Your task to perform on an android device: turn off smart reply in the gmail app Image 0: 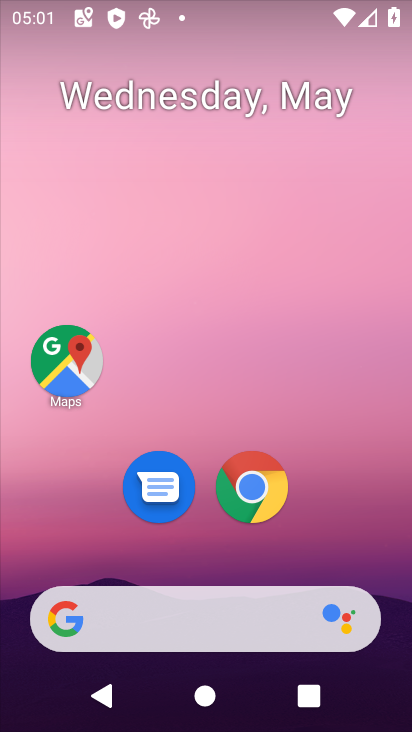
Step 0: drag from (348, 549) to (319, 184)
Your task to perform on an android device: turn off smart reply in the gmail app Image 1: 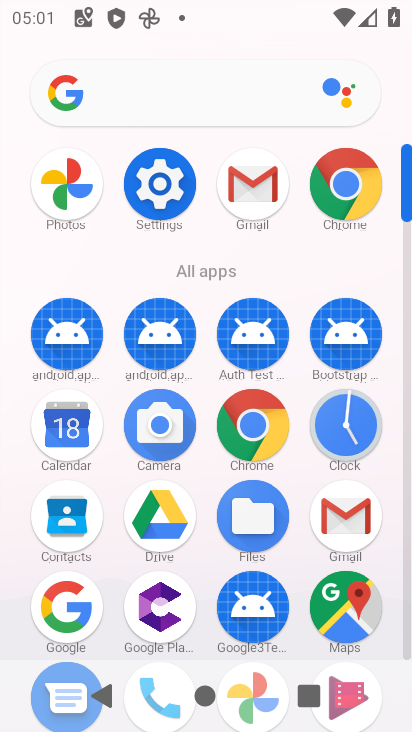
Step 1: click (264, 189)
Your task to perform on an android device: turn off smart reply in the gmail app Image 2: 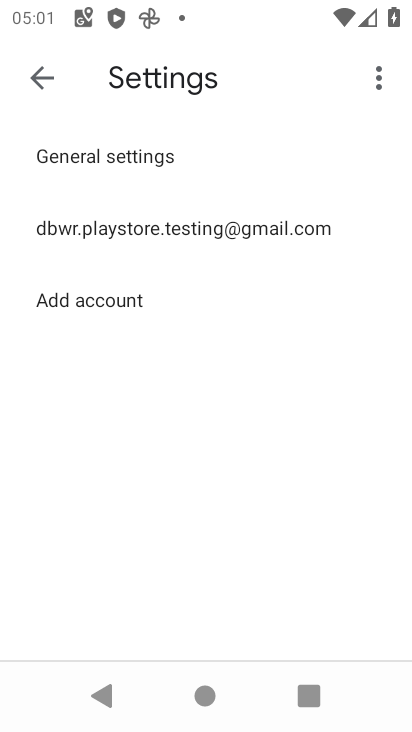
Step 2: click (211, 226)
Your task to perform on an android device: turn off smart reply in the gmail app Image 3: 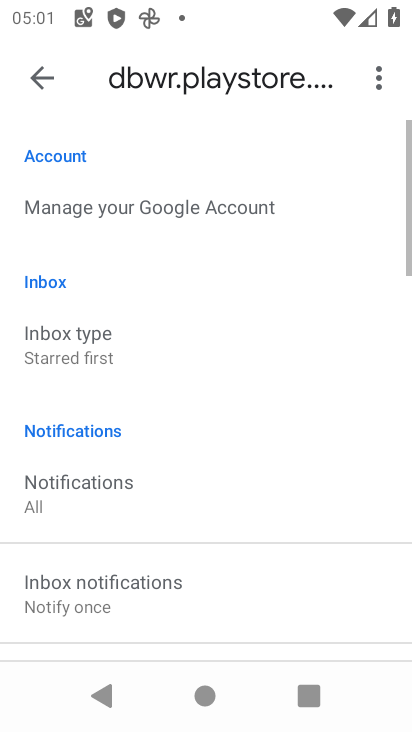
Step 3: drag from (118, 571) to (177, 236)
Your task to perform on an android device: turn off smart reply in the gmail app Image 4: 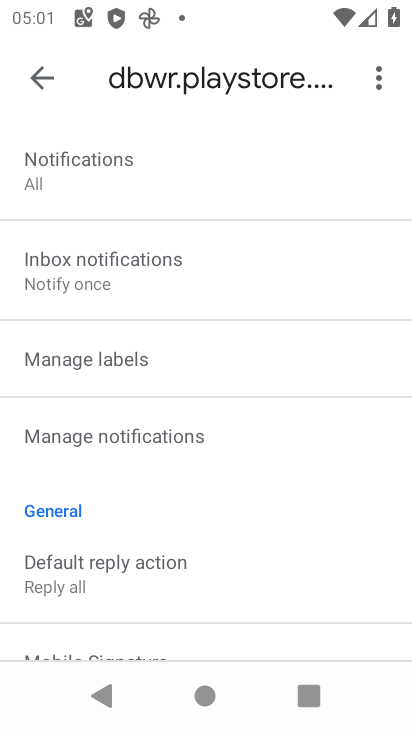
Step 4: drag from (196, 524) to (249, 351)
Your task to perform on an android device: turn off smart reply in the gmail app Image 5: 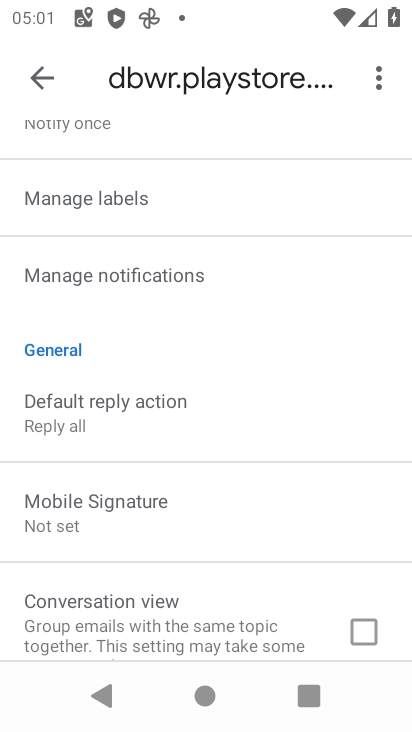
Step 5: drag from (118, 628) to (217, 290)
Your task to perform on an android device: turn off smart reply in the gmail app Image 6: 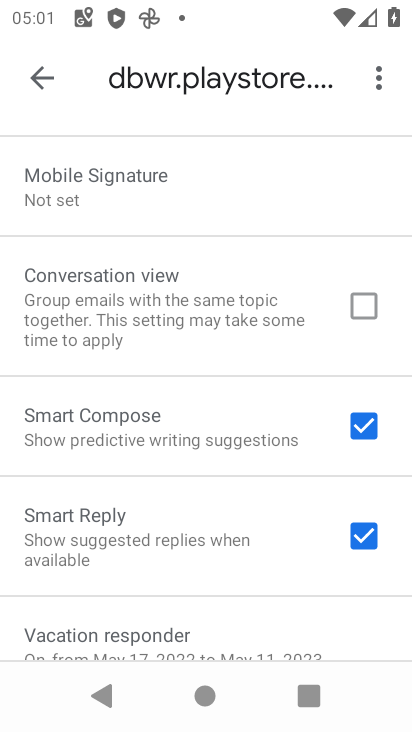
Step 6: click (347, 527)
Your task to perform on an android device: turn off smart reply in the gmail app Image 7: 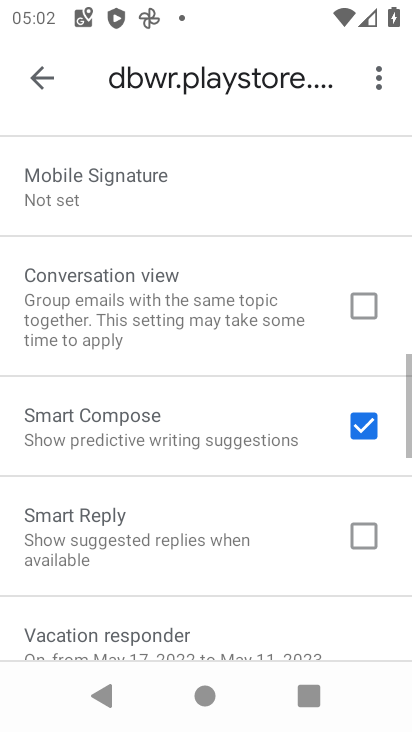
Step 7: task complete